Your task to perform on an android device: Show me productivity apps on the Play Store Image 0: 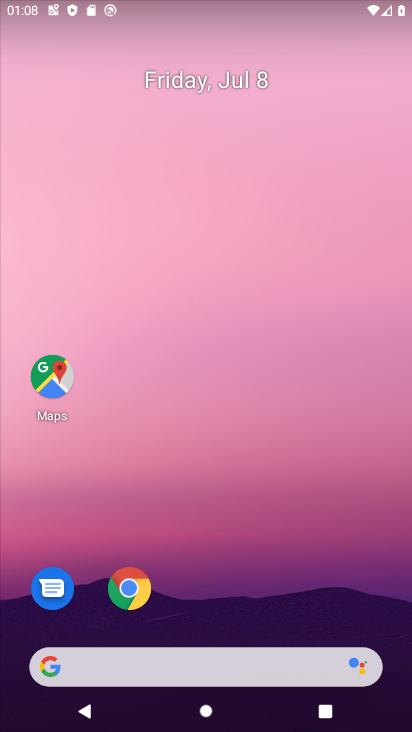
Step 0: drag from (187, 631) to (183, 139)
Your task to perform on an android device: Show me productivity apps on the Play Store Image 1: 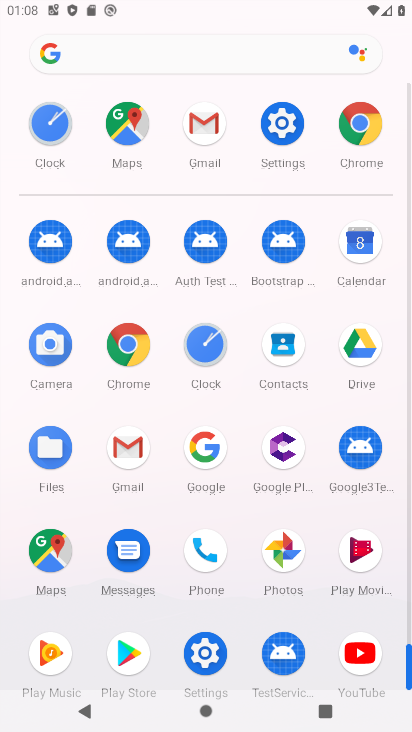
Step 1: click (126, 648)
Your task to perform on an android device: Show me productivity apps on the Play Store Image 2: 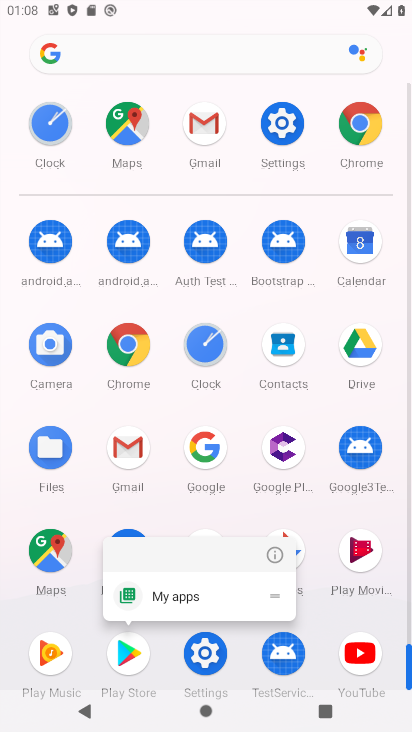
Step 2: click (280, 557)
Your task to perform on an android device: Show me productivity apps on the Play Store Image 3: 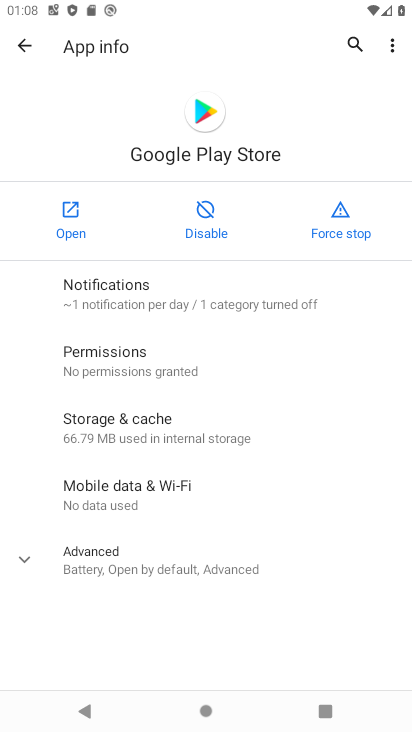
Step 3: click (69, 209)
Your task to perform on an android device: Show me productivity apps on the Play Store Image 4: 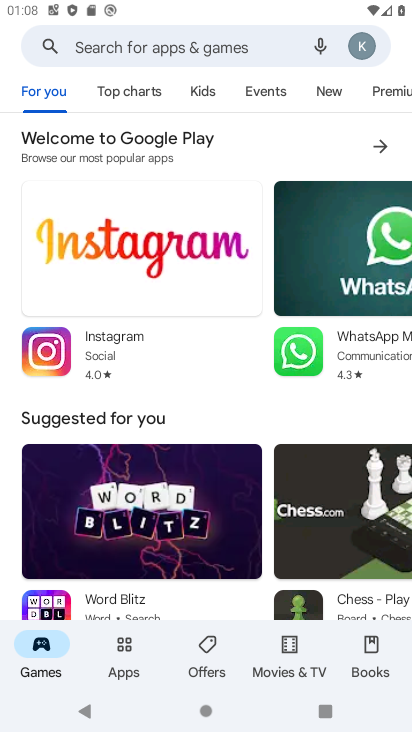
Step 4: task complete